Your task to perform on an android device: Go to wifi settings Image 0: 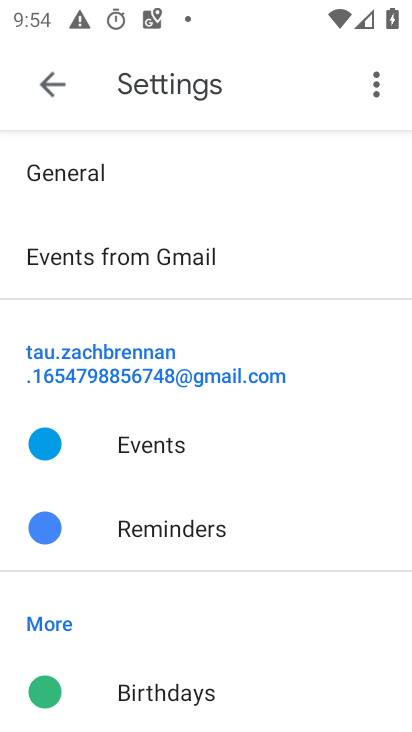
Step 0: press home button
Your task to perform on an android device: Go to wifi settings Image 1: 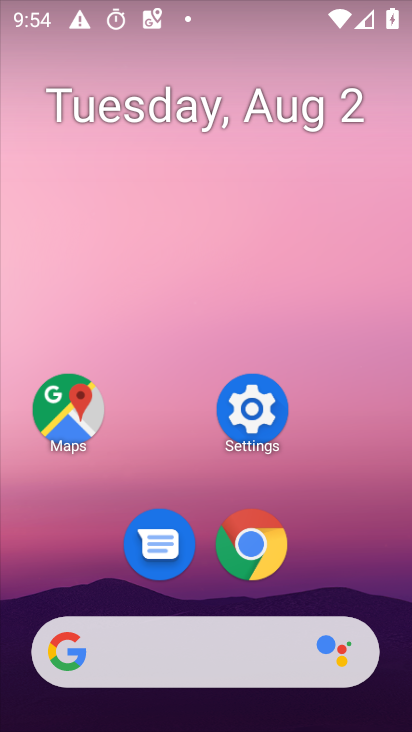
Step 1: click (256, 399)
Your task to perform on an android device: Go to wifi settings Image 2: 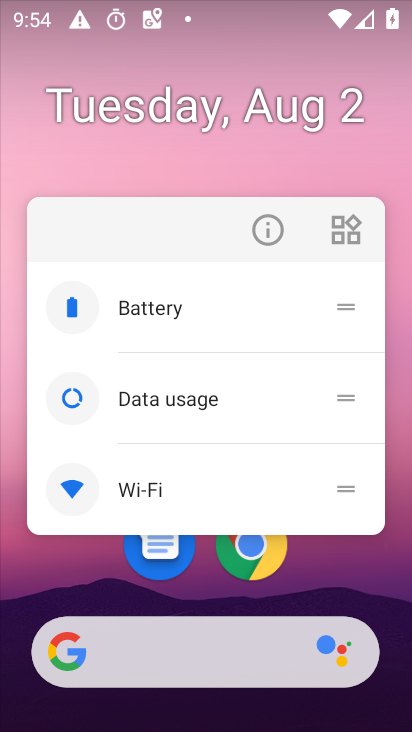
Step 2: click (345, 556)
Your task to perform on an android device: Go to wifi settings Image 3: 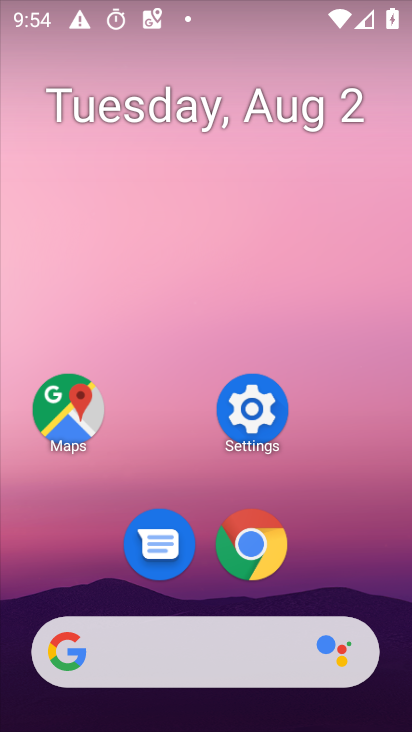
Step 3: click (345, 556)
Your task to perform on an android device: Go to wifi settings Image 4: 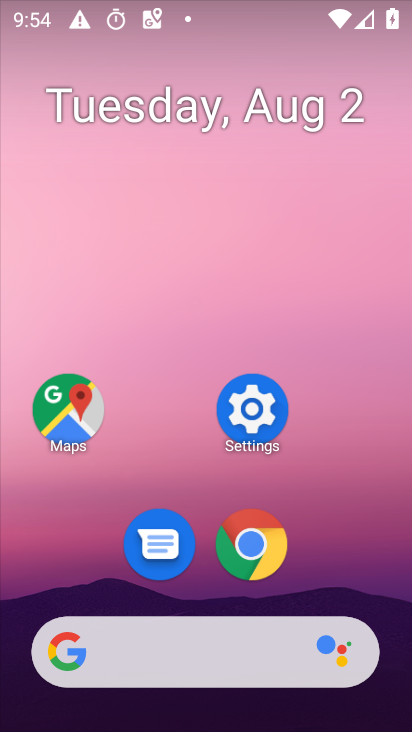
Step 4: click (252, 413)
Your task to perform on an android device: Go to wifi settings Image 5: 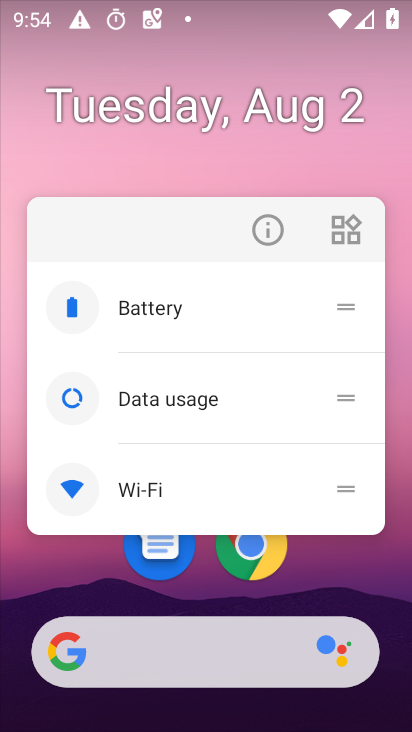
Step 5: click (401, 538)
Your task to perform on an android device: Go to wifi settings Image 6: 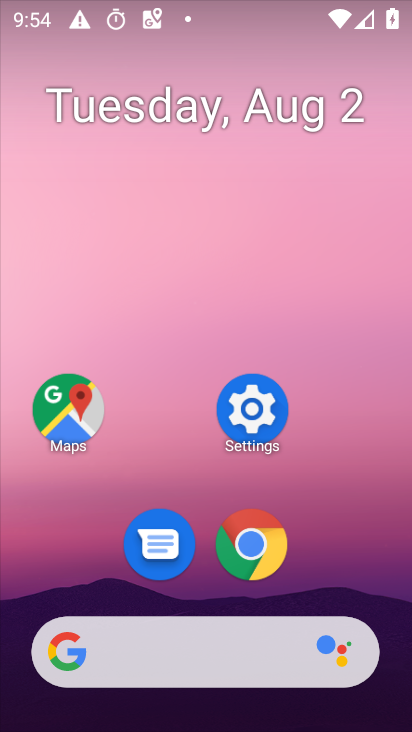
Step 6: click (401, 534)
Your task to perform on an android device: Go to wifi settings Image 7: 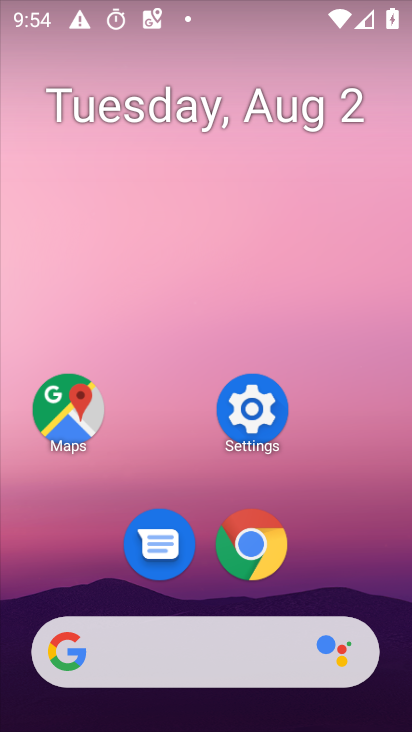
Step 7: click (250, 407)
Your task to perform on an android device: Go to wifi settings Image 8: 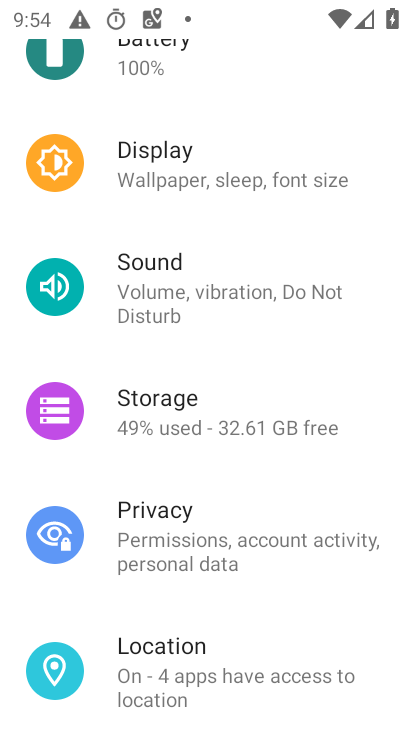
Step 8: drag from (285, 121) to (288, 630)
Your task to perform on an android device: Go to wifi settings Image 9: 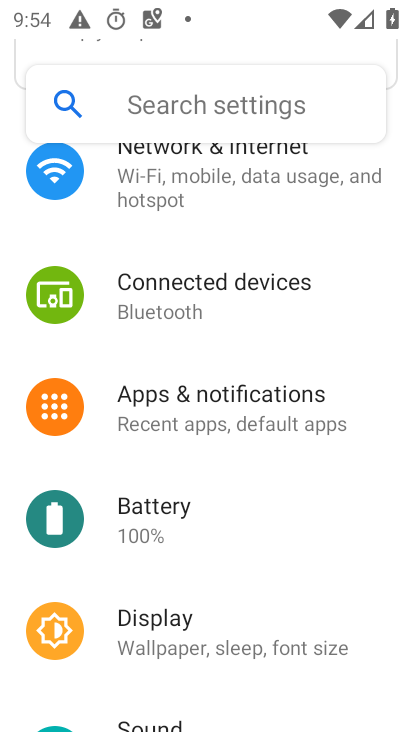
Step 9: drag from (316, 243) to (313, 489)
Your task to perform on an android device: Go to wifi settings Image 10: 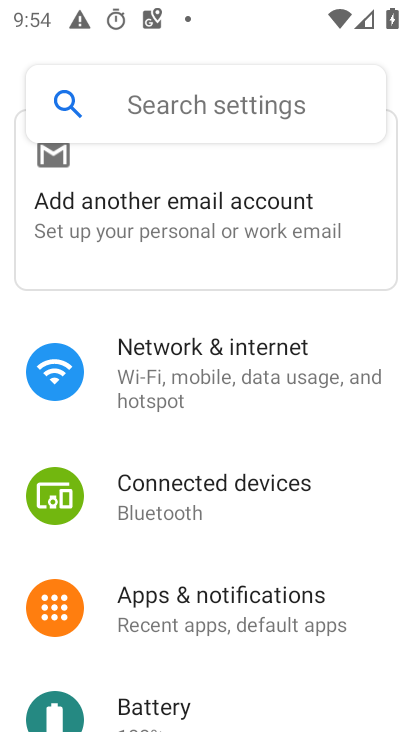
Step 10: click (249, 355)
Your task to perform on an android device: Go to wifi settings Image 11: 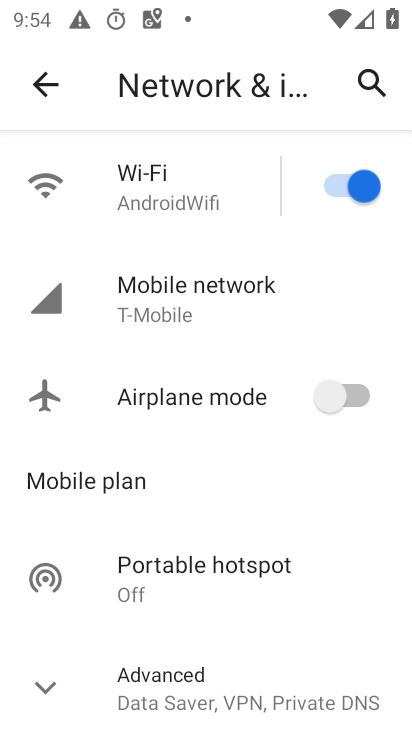
Step 11: click (125, 194)
Your task to perform on an android device: Go to wifi settings Image 12: 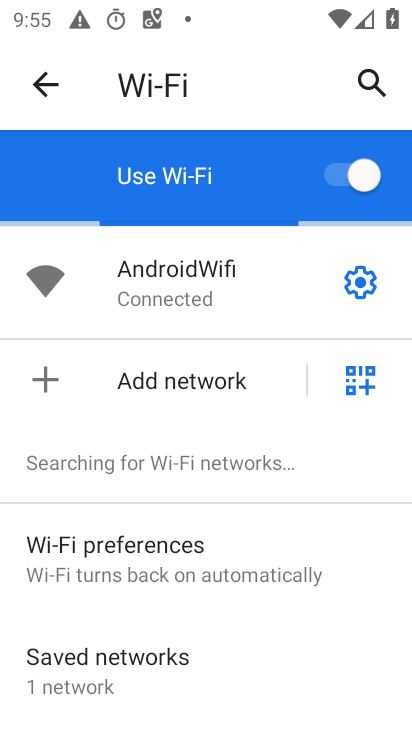
Step 12: task complete